Your task to perform on an android device: Open the phone app and click the voicemail tab. Image 0: 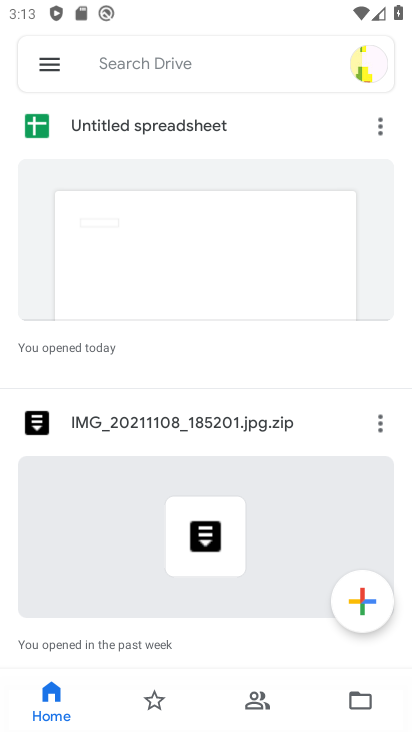
Step 0: press home button
Your task to perform on an android device: Open the phone app and click the voicemail tab. Image 1: 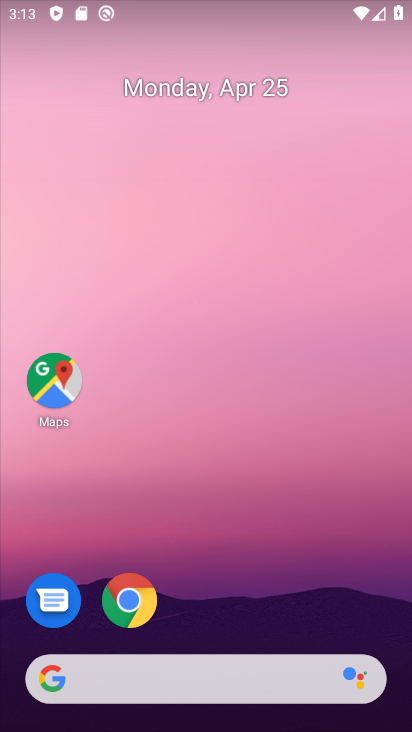
Step 1: drag from (232, 588) to (269, 26)
Your task to perform on an android device: Open the phone app and click the voicemail tab. Image 2: 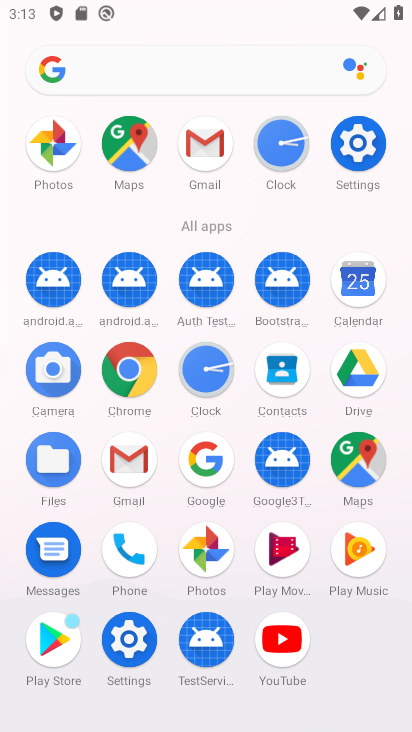
Step 2: click (133, 544)
Your task to perform on an android device: Open the phone app and click the voicemail tab. Image 3: 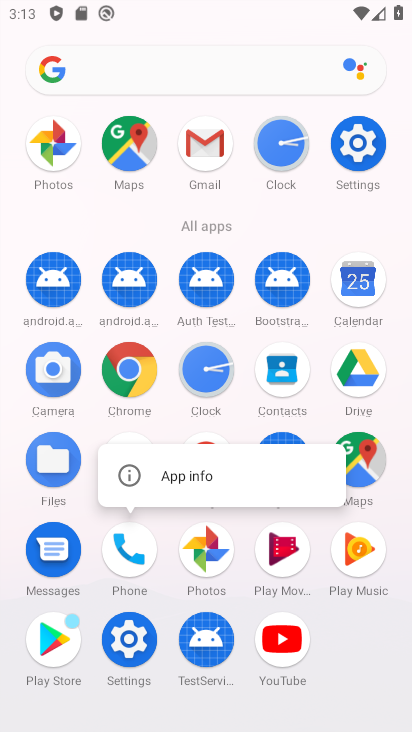
Step 3: click (133, 544)
Your task to perform on an android device: Open the phone app and click the voicemail tab. Image 4: 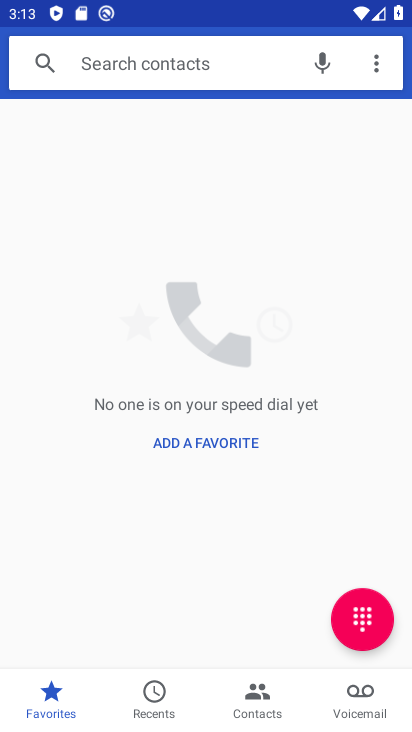
Step 4: click (354, 693)
Your task to perform on an android device: Open the phone app and click the voicemail tab. Image 5: 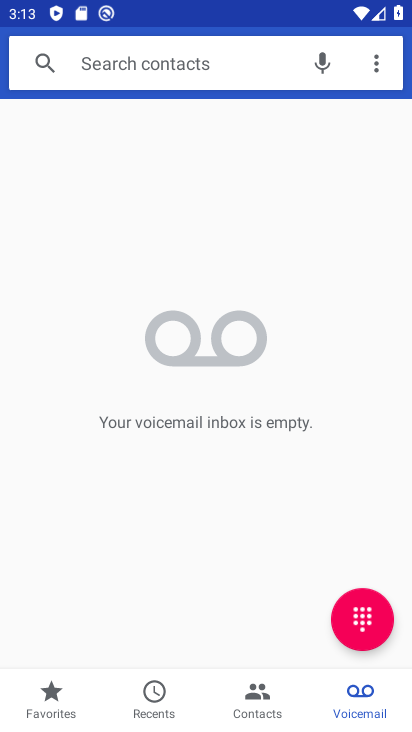
Step 5: task complete